Your task to perform on an android device: Is it going to rain today? Image 0: 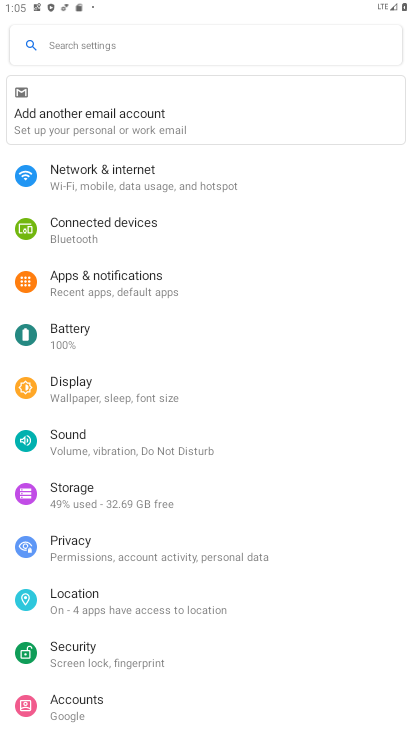
Step 0: press home button
Your task to perform on an android device: Is it going to rain today? Image 1: 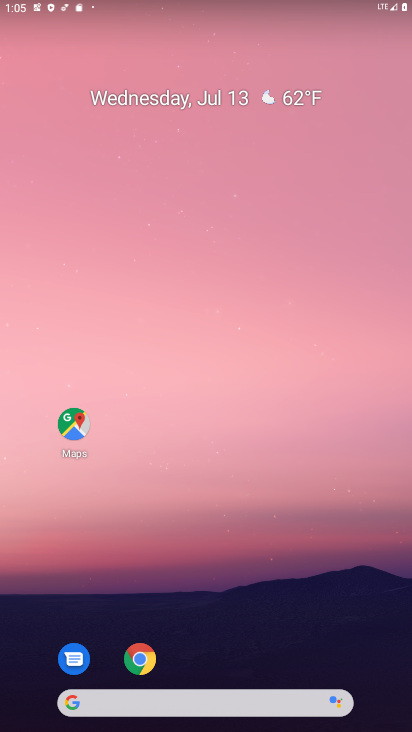
Step 1: drag from (229, 718) to (222, 250)
Your task to perform on an android device: Is it going to rain today? Image 2: 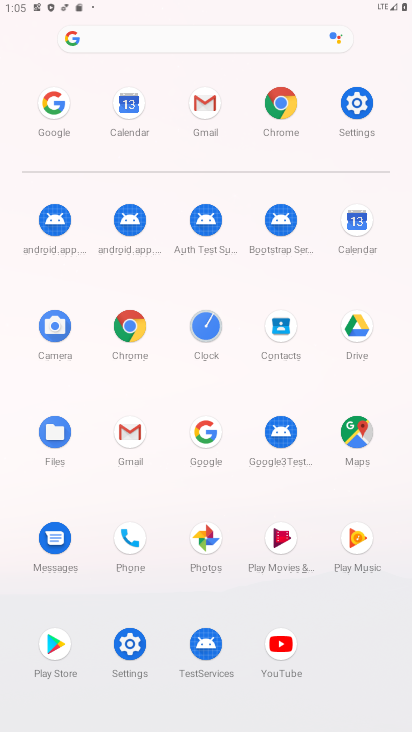
Step 2: click (202, 432)
Your task to perform on an android device: Is it going to rain today? Image 3: 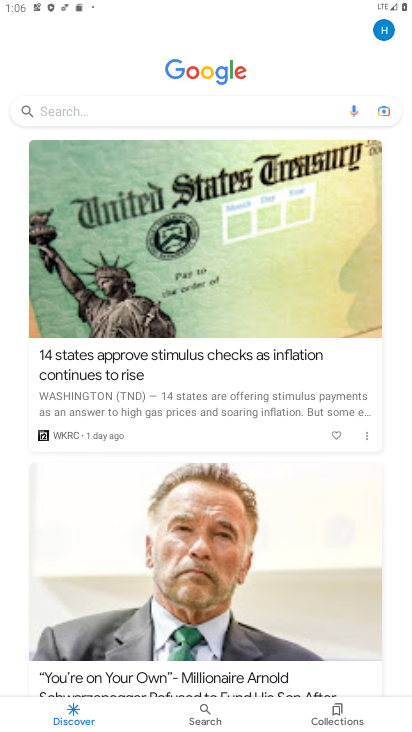
Step 3: click (210, 106)
Your task to perform on an android device: Is it going to rain today? Image 4: 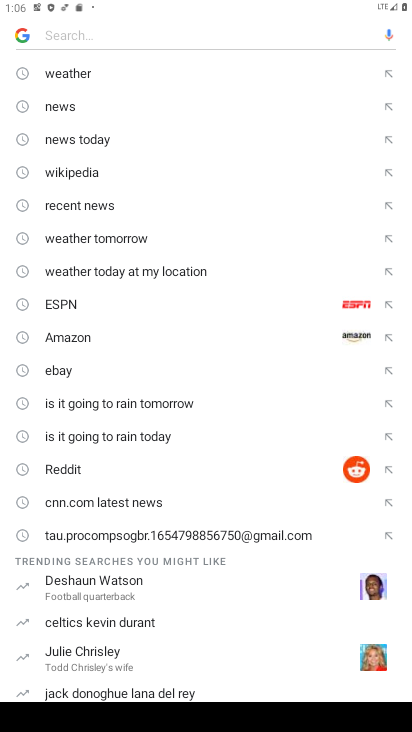
Step 4: click (67, 74)
Your task to perform on an android device: Is it going to rain today? Image 5: 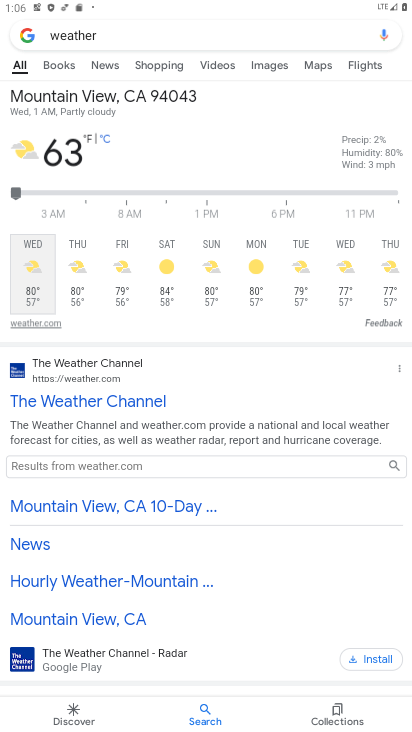
Step 5: task complete